Your task to perform on an android device: Open Youtube and go to the subscriptions tab Image 0: 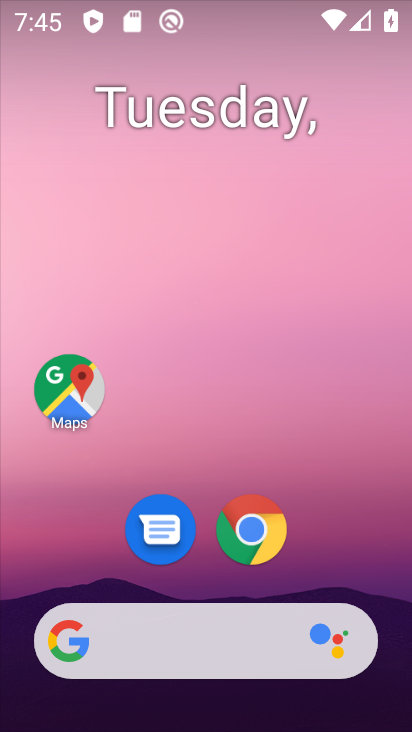
Step 0: drag from (242, 571) to (272, 3)
Your task to perform on an android device: Open Youtube and go to the subscriptions tab Image 1: 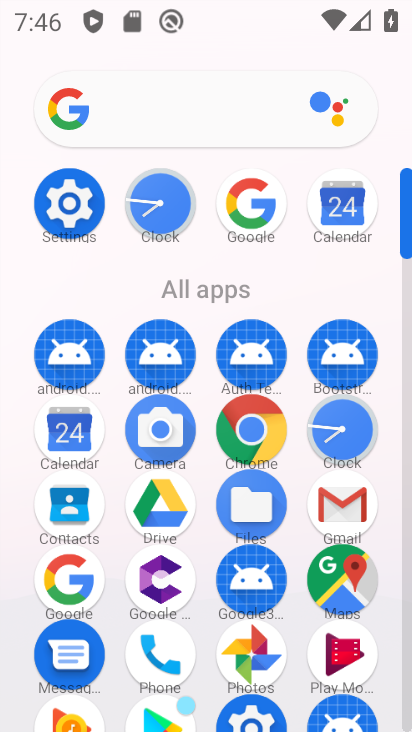
Step 1: drag from (222, 588) to (231, 246)
Your task to perform on an android device: Open Youtube and go to the subscriptions tab Image 2: 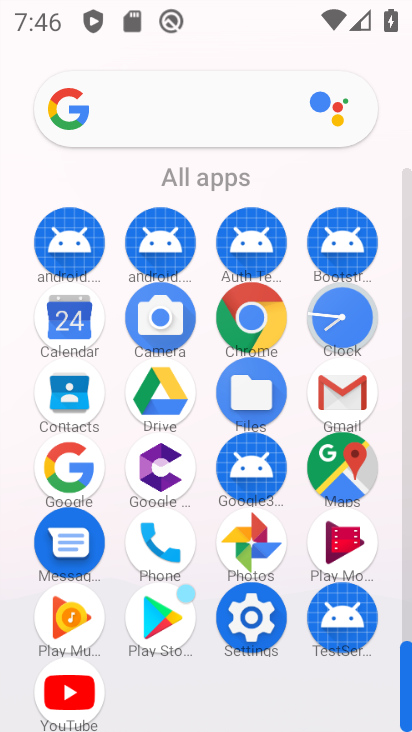
Step 2: click (79, 716)
Your task to perform on an android device: Open Youtube and go to the subscriptions tab Image 3: 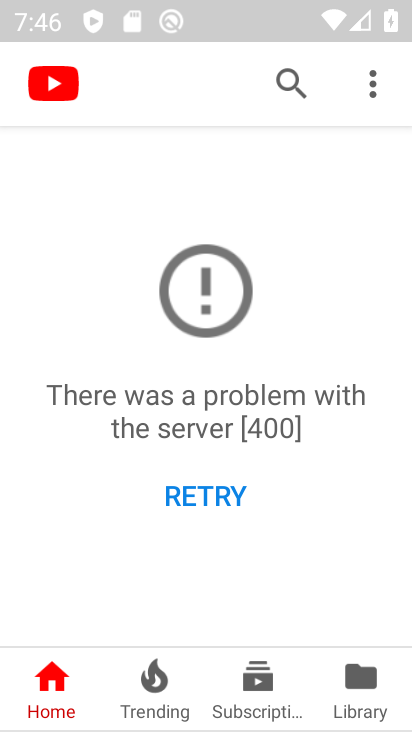
Step 3: click (260, 709)
Your task to perform on an android device: Open Youtube and go to the subscriptions tab Image 4: 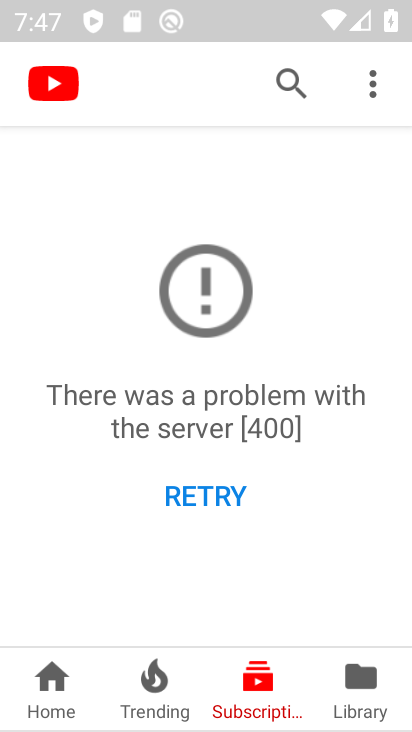
Step 4: task complete